Your task to perform on an android device: Open the web browser Image 0: 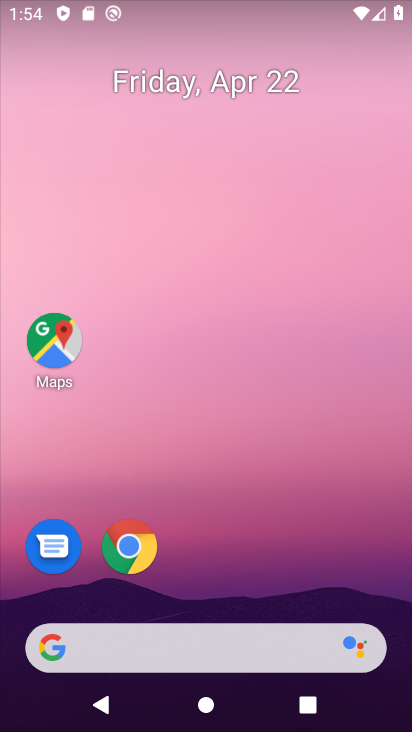
Step 0: drag from (220, 544) to (299, 307)
Your task to perform on an android device: Open the web browser Image 1: 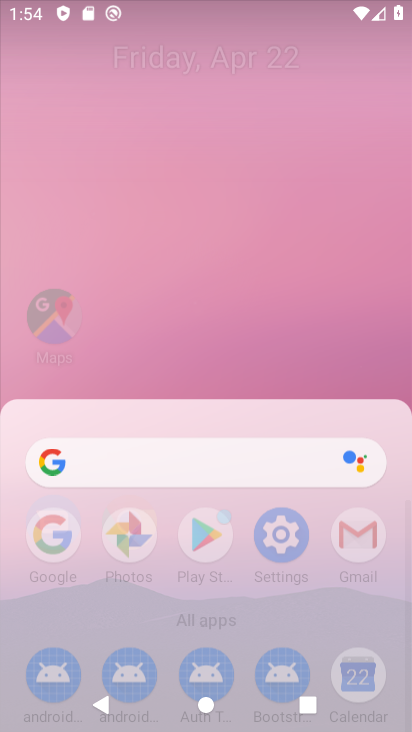
Step 1: click (318, 194)
Your task to perform on an android device: Open the web browser Image 2: 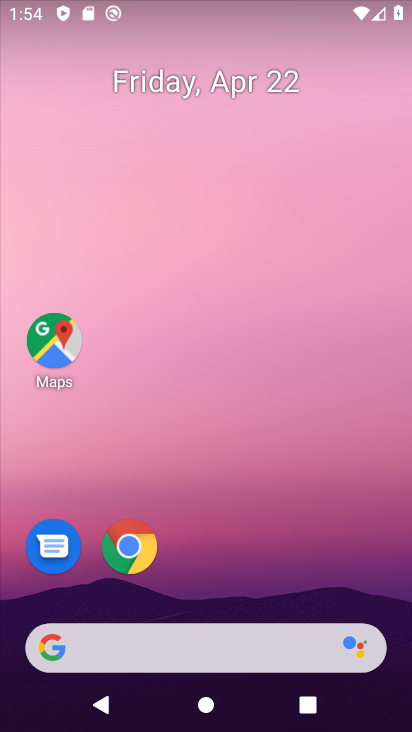
Step 2: drag from (238, 621) to (295, 167)
Your task to perform on an android device: Open the web browser Image 3: 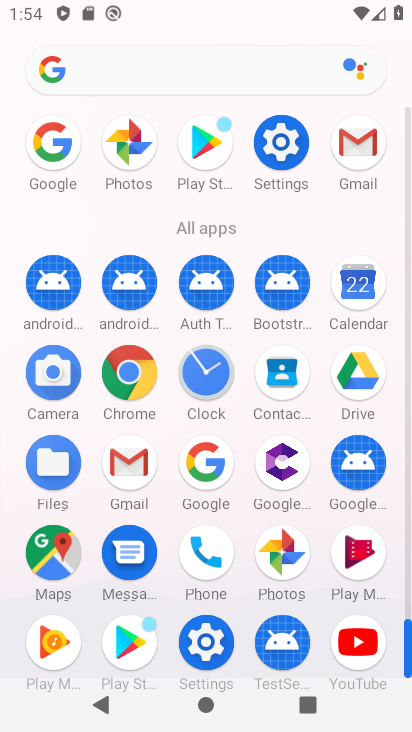
Step 3: drag from (285, 501) to (327, 334)
Your task to perform on an android device: Open the web browser Image 4: 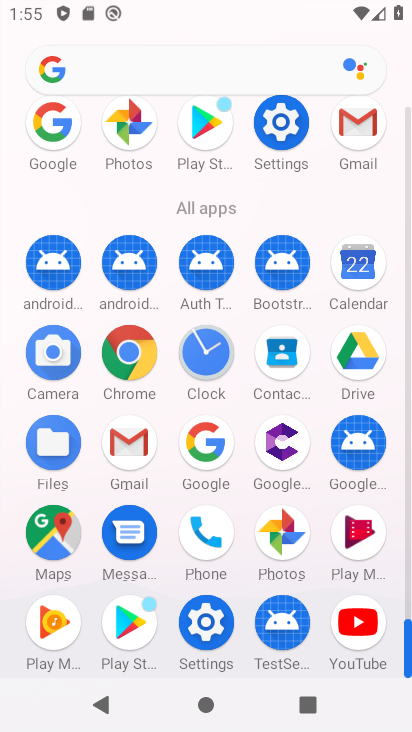
Step 4: click (132, 386)
Your task to perform on an android device: Open the web browser Image 5: 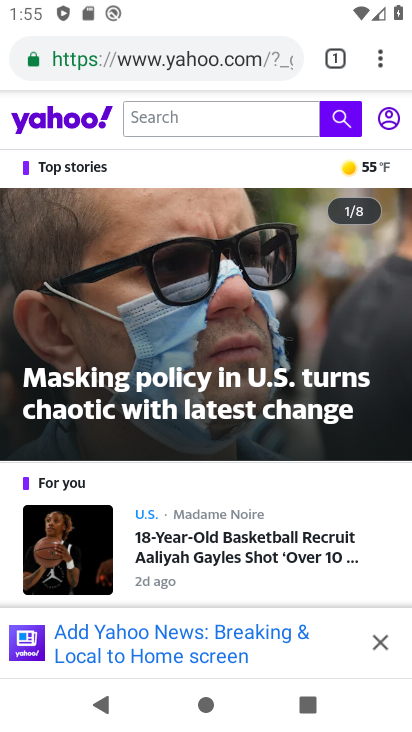
Step 5: click (377, 642)
Your task to perform on an android device: Open the web browser Image 6: 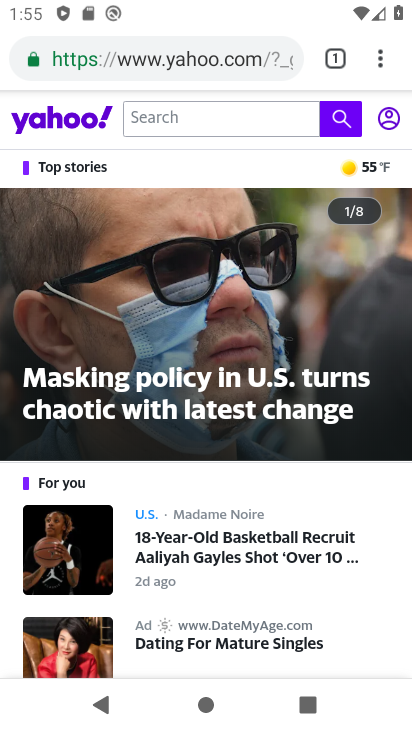
Step 6: task complete